Your task to perform on an android device: Go to location settings Image 0: 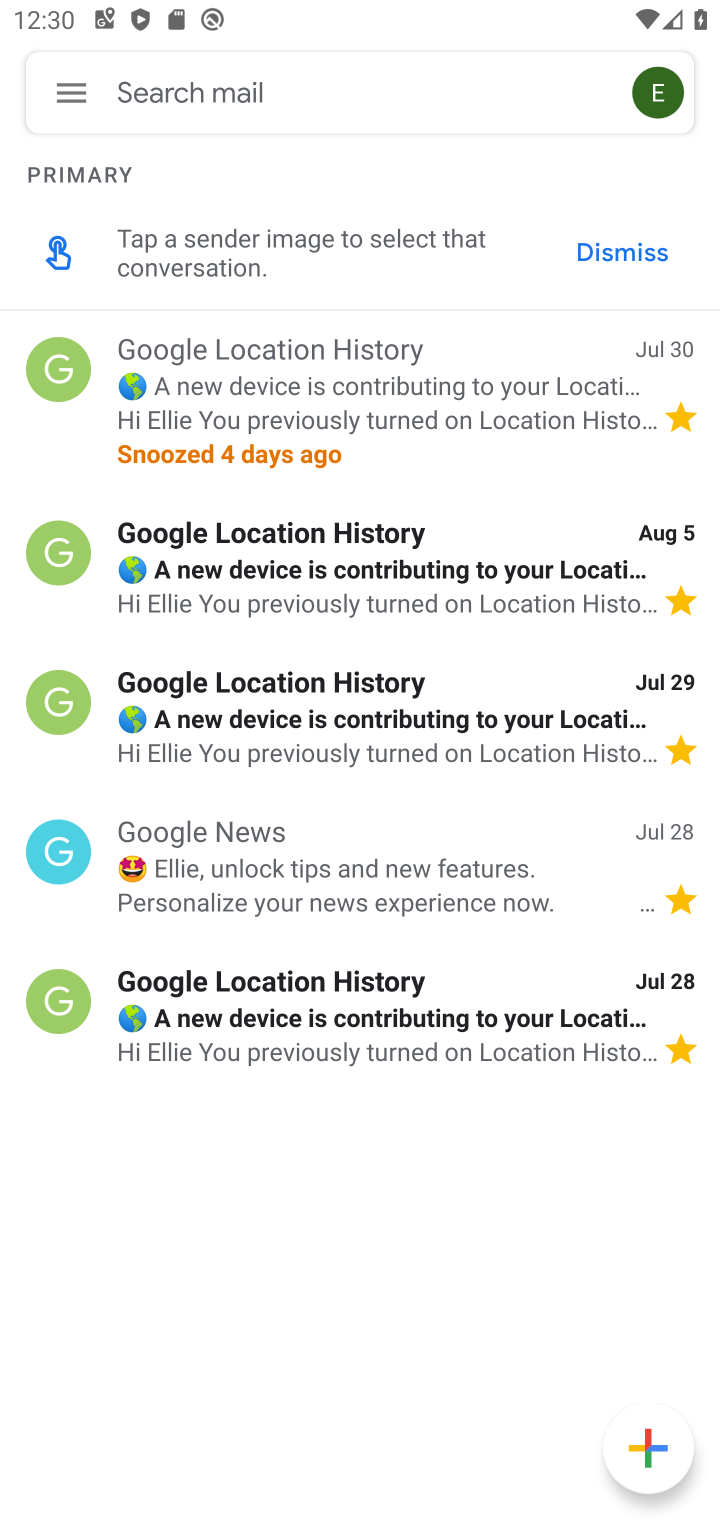
Step 0: press back button
Your task to perform on an android device: Go to location settings Image 1: 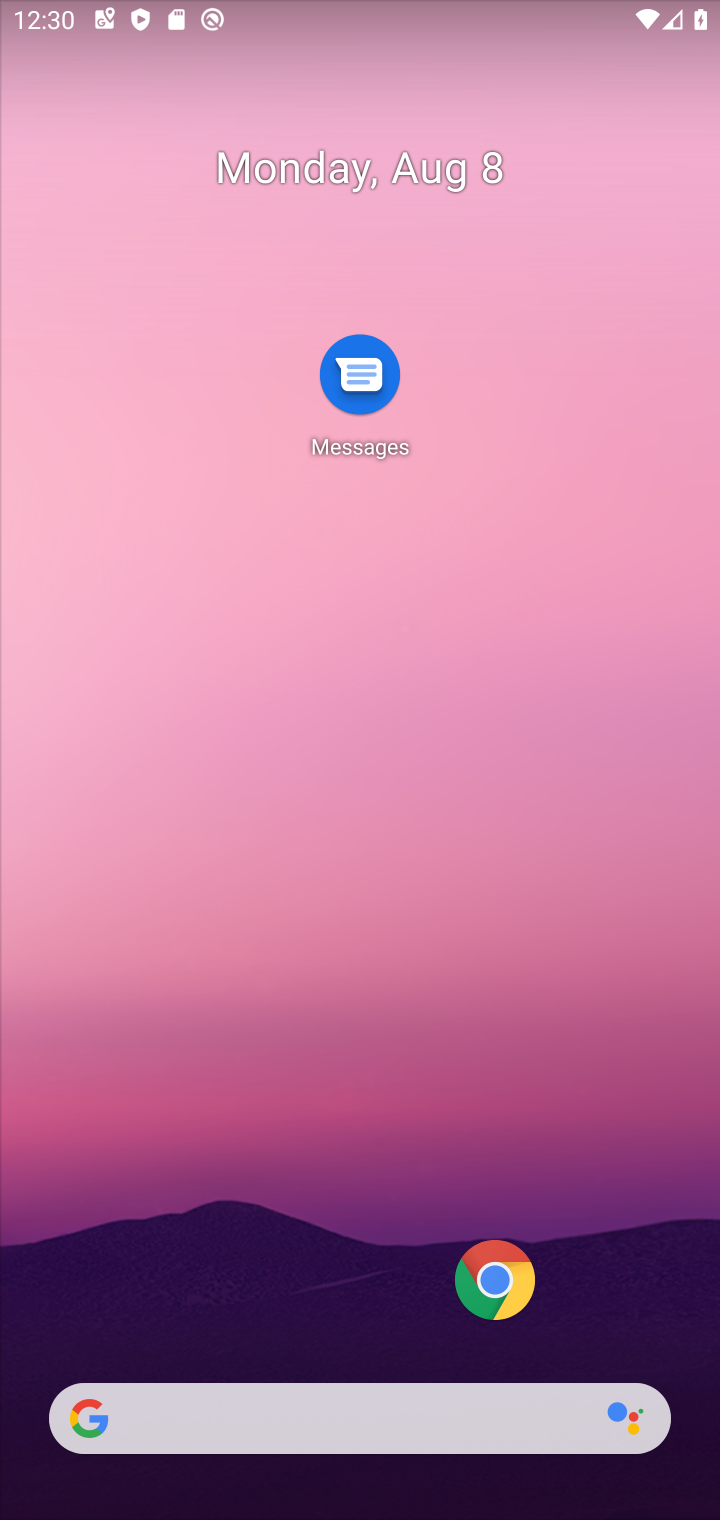
Step 1: drag from (298, 1301) to (352, 359)
Your task to perform on an android device: Go to location settings Image 2: 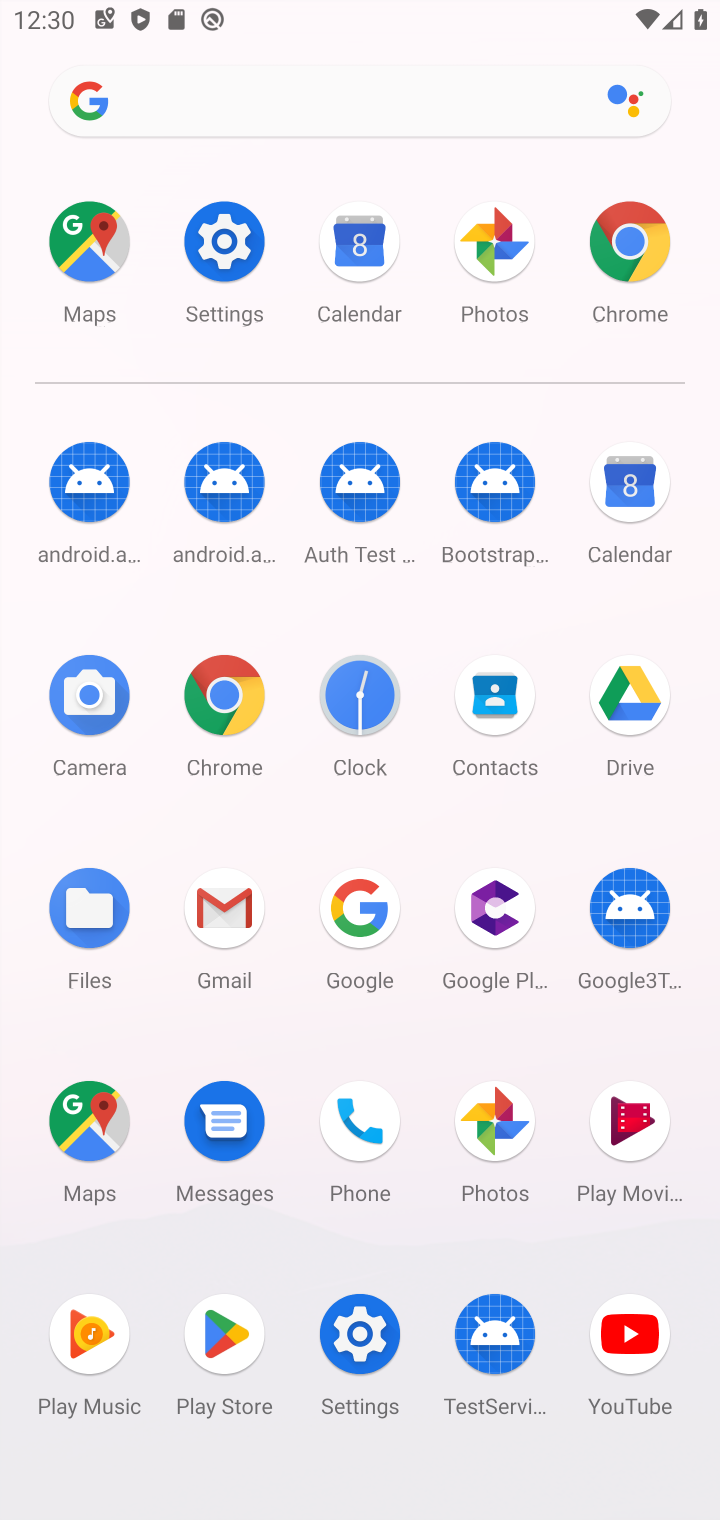
Step 2: click (272, 263)
Your task to perform on an android device: Go to location settings Image 3: 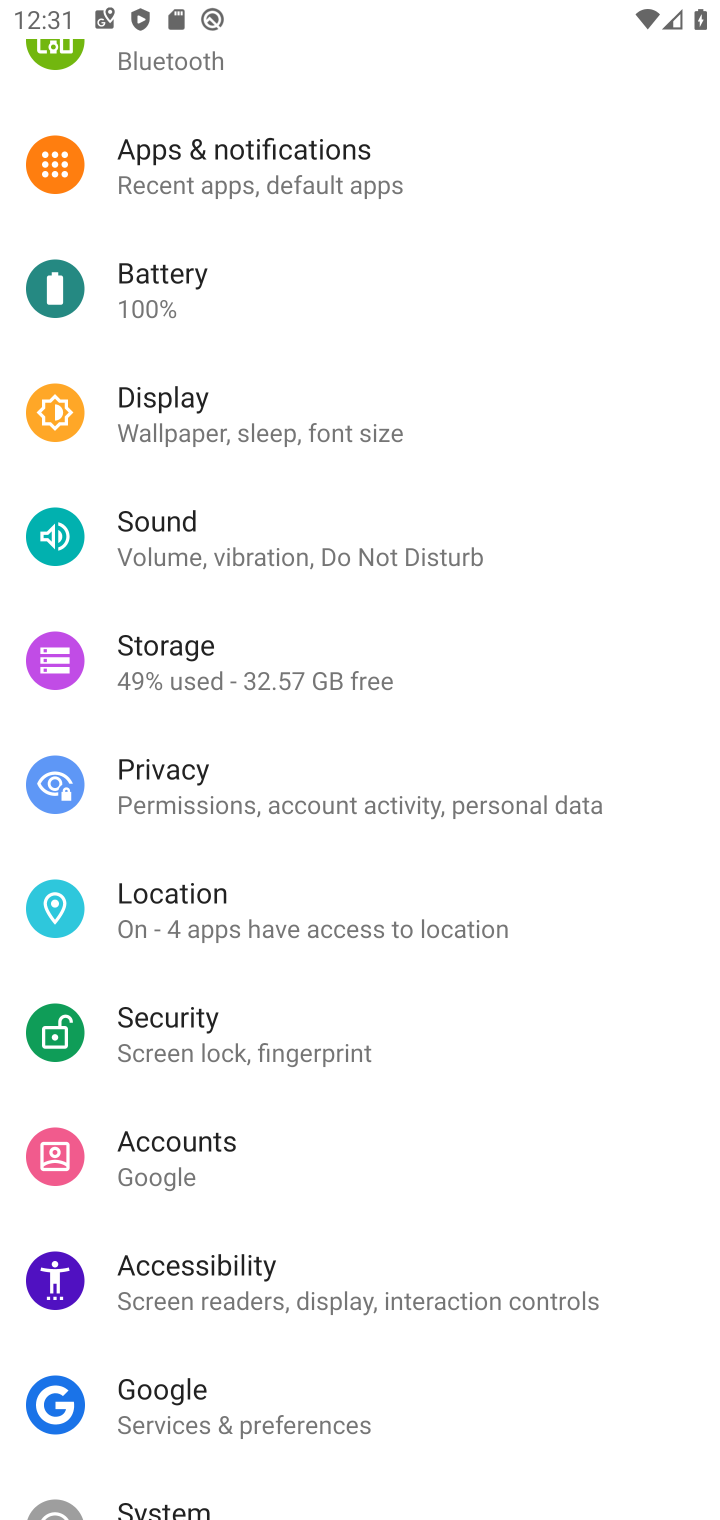
Step 3: click (204, 916)
Your task to perform on an android device: Go to location settings Image 4: 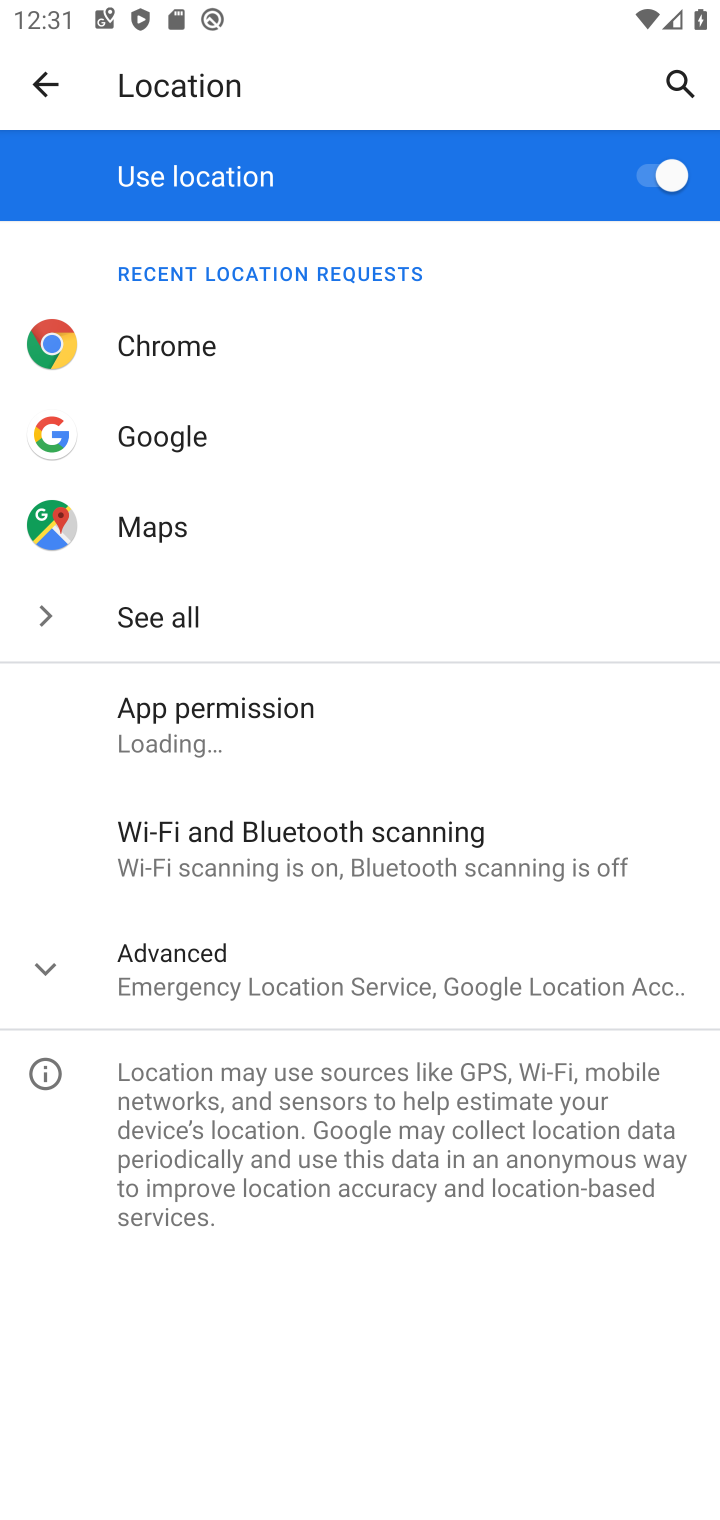
Step 4: task complete